Your task to perform on an android device: Open Yahoo.com Image 0: 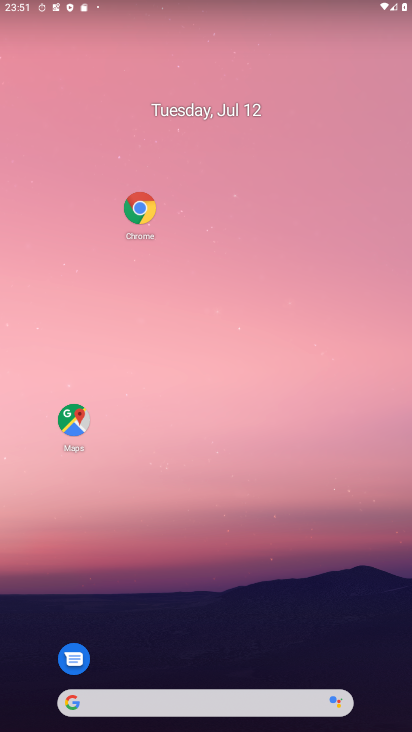
Step 0: drag from (203, 699) to (252, 232)
Your task to perform on an android device: Open Yahoo.com Image 1: 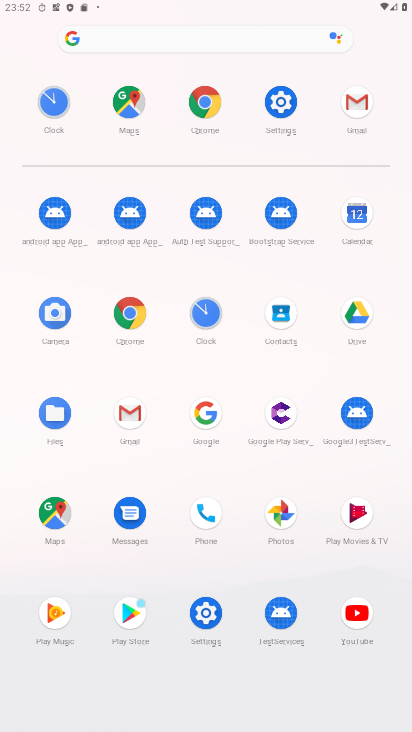
Step 1: click (138, 312)
Your task to perform on an android device: Open Yahoo.com Image 2: 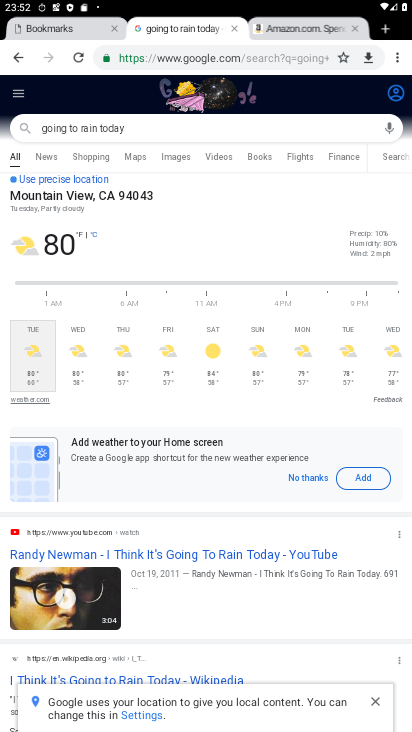
Step 2: drag from (399, 56) to (331, 54)
Your task to perform on an android device: Open Yahoo.com Image 3: 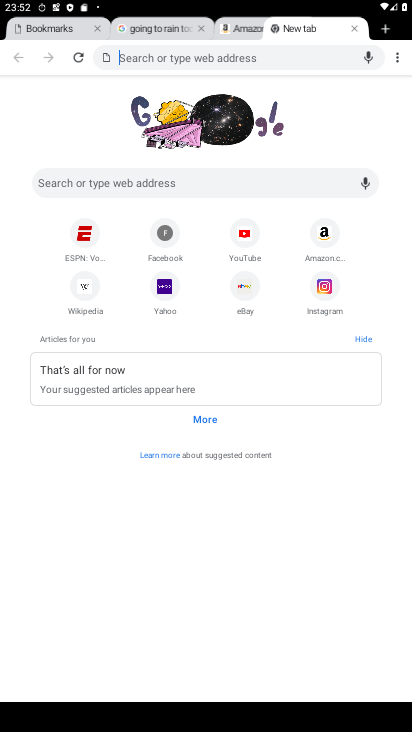
Step 3: click (173, 295)
Your task to perform on an android device: Open Yahoo.com Image 4: 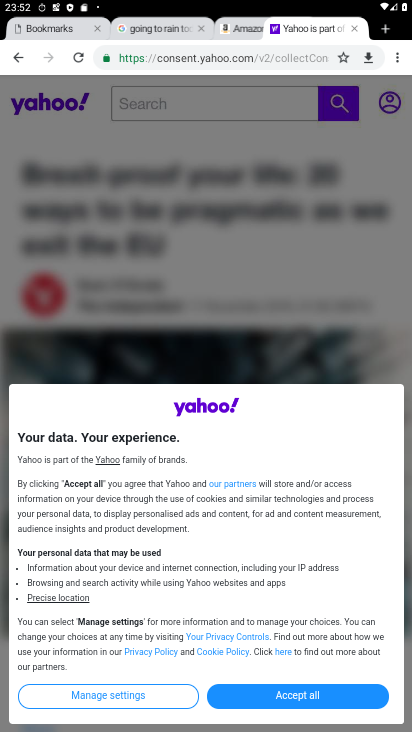
Step 4: task complete